Your task to perform on an android device: Do I have any events tomorrow? Image 0: 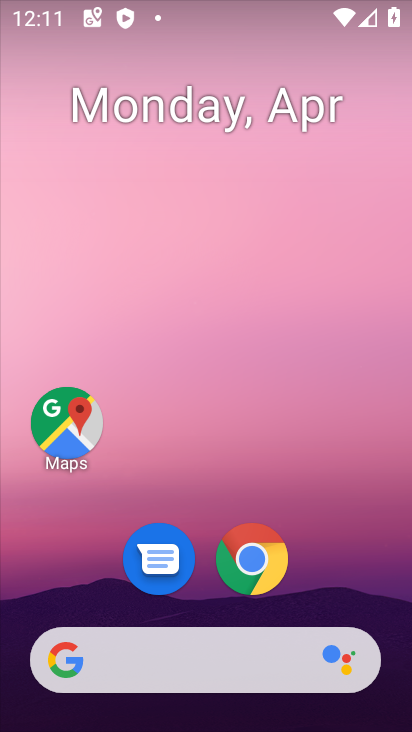
Step 0: drag from (200, 606) to (225, 124)
Your task to perform on an android device: Do I have any events tomorrow? Image 1: 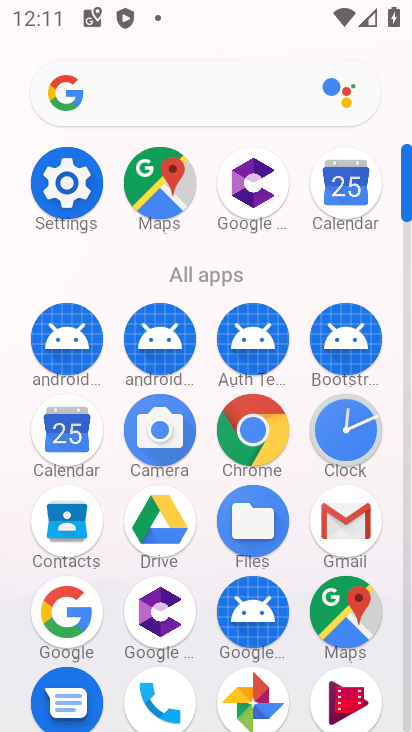
Step 1: click (81, 443)
Your task to perform on an android device: Do I have any events tomorrow? Image 2: 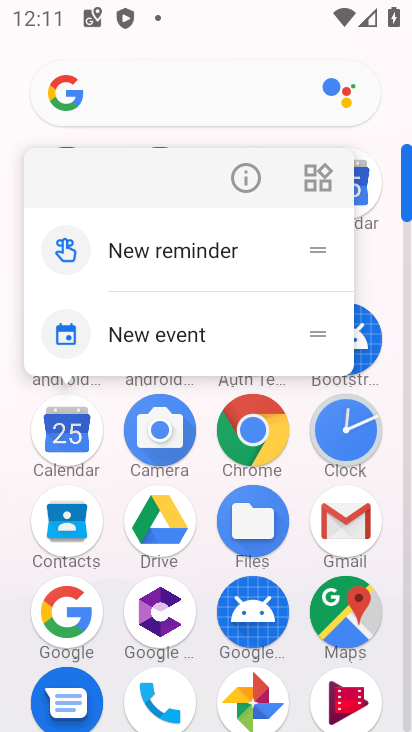
Step 2: click (235, 184)
Your task to perform on an android device: Do I have any events tomorrow? Image 3: 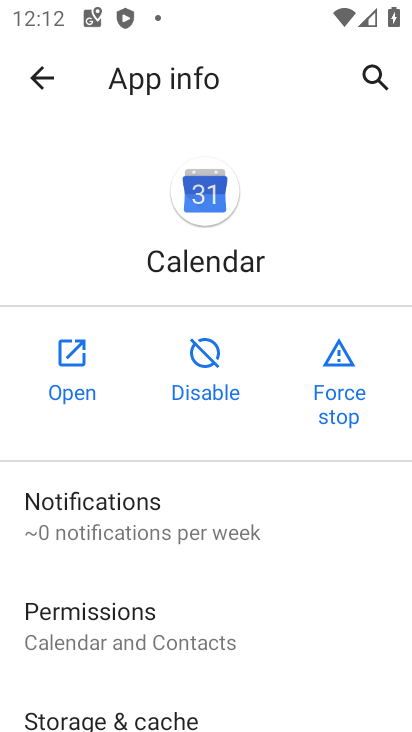
Step 3: click (86, 376)
Your task to perform on an android device: Do I have any events tomorrow? Image 4: 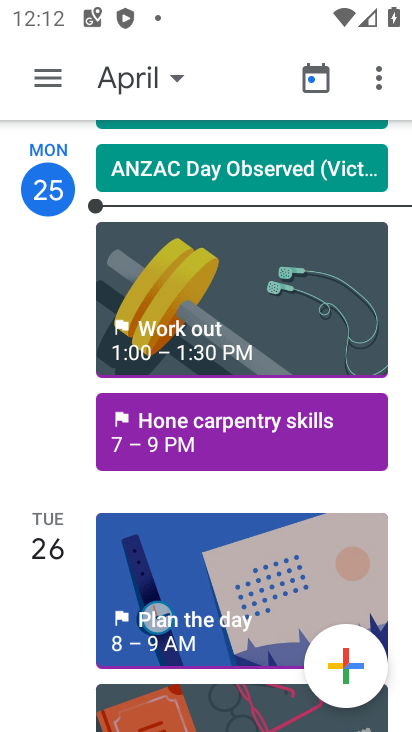
Step 4: click (153, 81)
Your task to perform on an android device: Do I have any events tomorrow? Image 5: 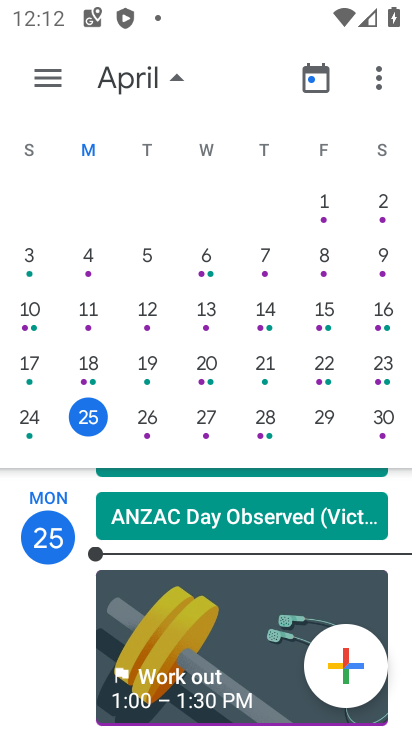
Step 5: click (146, 420)
Your task to perform on an android device: Do I have any events tomorrow? Image 6: 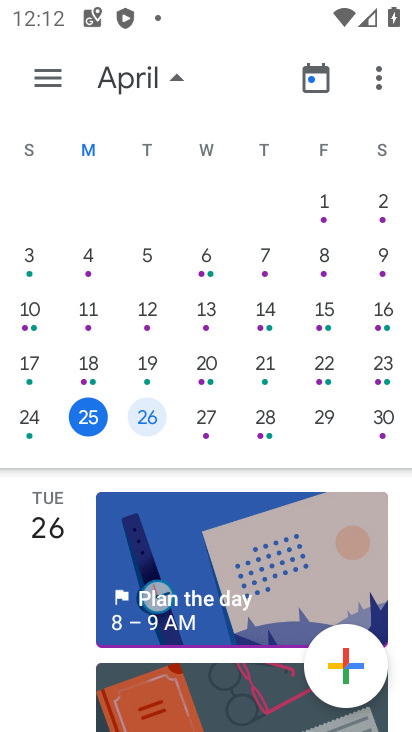
Step 6: click (178, 79)
Your task to perform on an android device: Do I have any events tomorrow? Image 7: 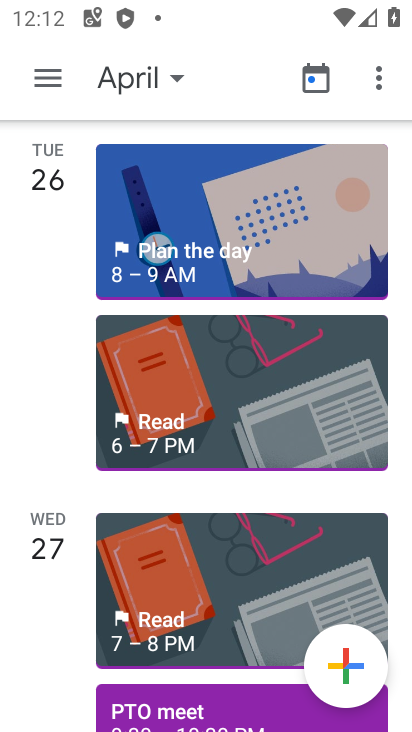
Step 7: task complete